Your task to perform on an android device: Open the phone app and click the voicemail tab. Image 0: 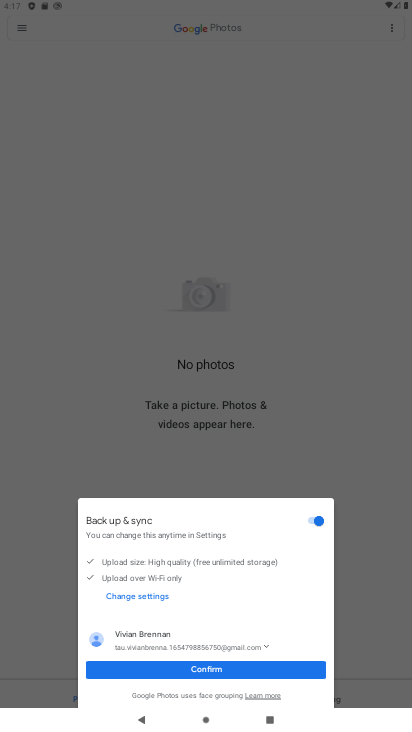
Step 0: press home button
Your task to perform on an android device: Open the phone app and click the voicemail tab. Image 1: 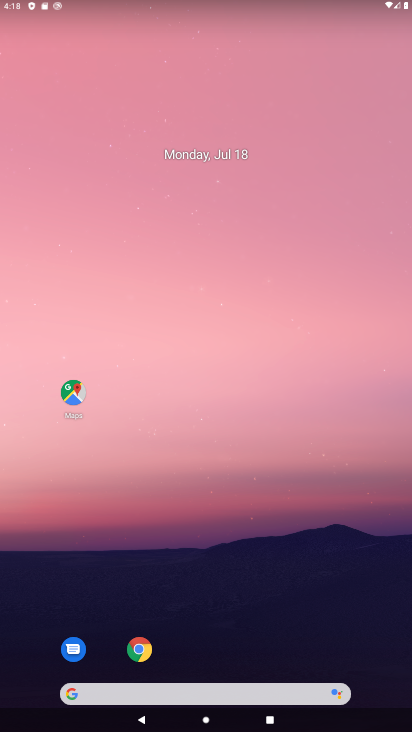
Step 1: drag from (196, 609) to (222, 257)
Your task to perform on an android device: Open the phone app and click the voicemail tab. Image 2: 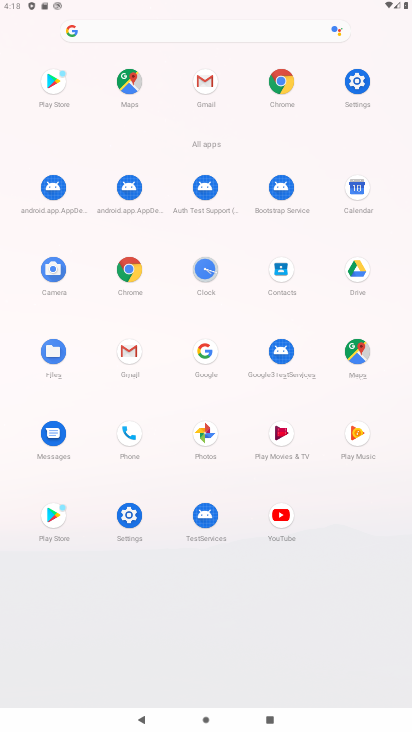
Step 2: click (123, 440)
Your task to perform on an android device: Open the phone app and click the voicemail tab. Image 3: 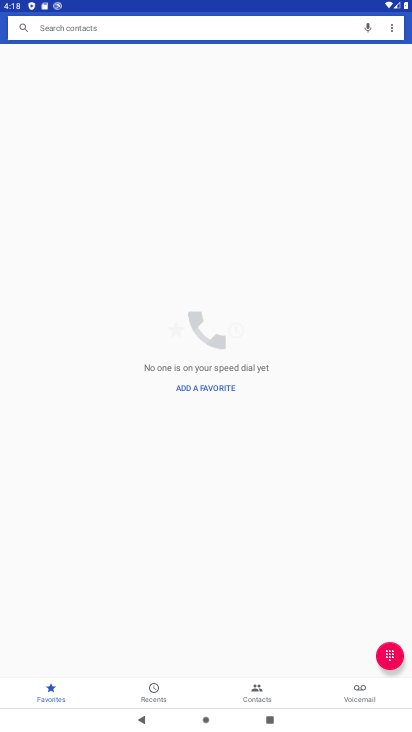
Step 3: click (365, 698)
Your task to perform on an android device: Open the phone app and click the voicemail tab. Image 4: 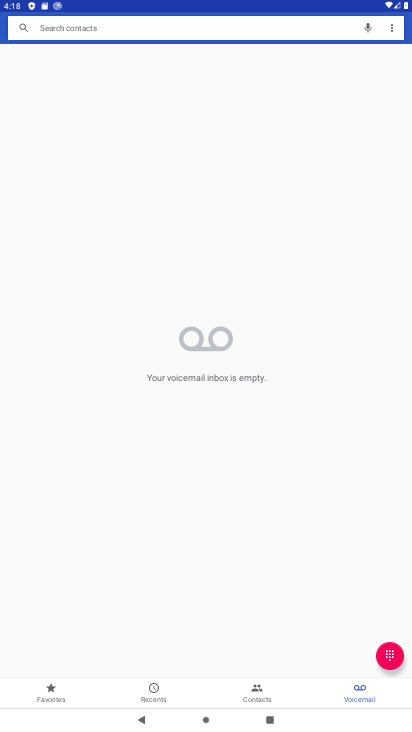
Step 4: task complete